Your task to perform on an android device: toggle pop-ups in chrome Image 0: 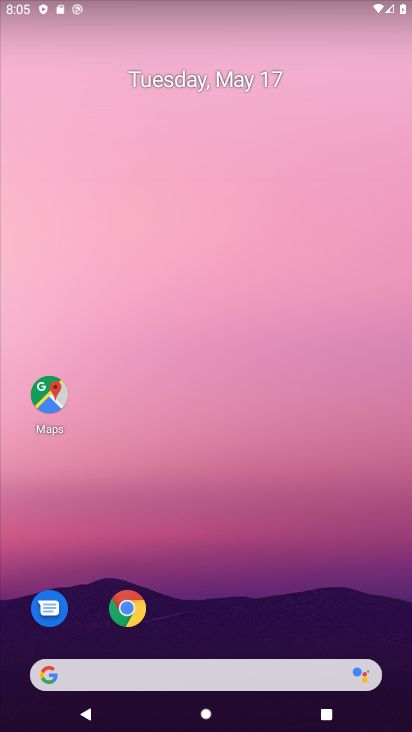
Step 0: drag from (366, 614) to (352, 167)
Your task to perform on an android device: toggle pop-ups in chrome Image 1: 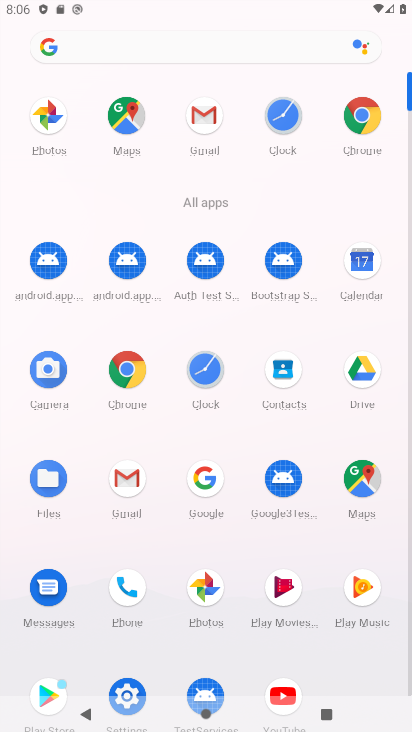
Step 1: click (370, 138)
Your task to perform on an android device: toggle pop-ups in chrome Image 2: 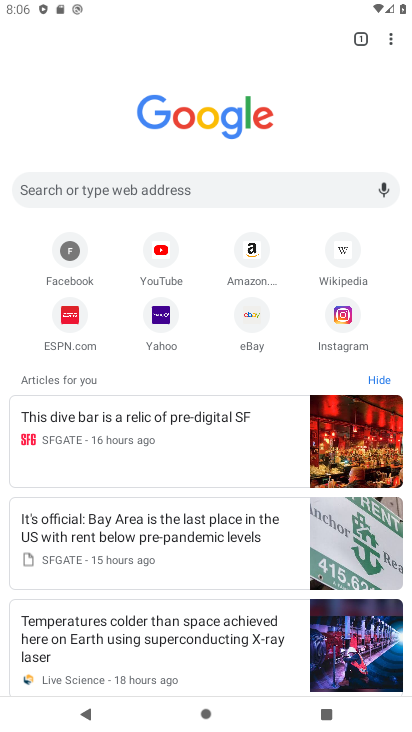
Step 2: click (391, 43)
Your task to perform on an android device: toggle pop-ups in chrome Image 3: 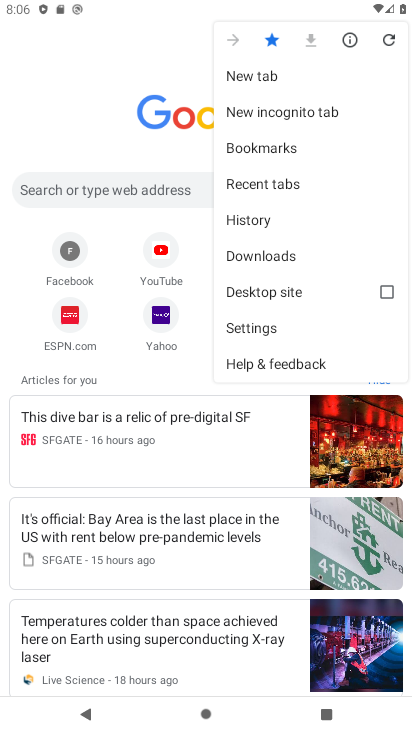
Step 3: click (268, 336)
Your task to perform on an android device: toggle pop-ups in chrome Image 4: 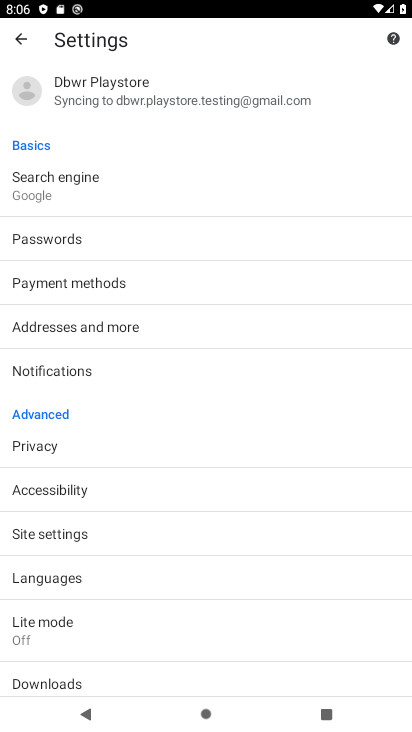
Step 4: drag from (298, 570) to (309, 423)
Your task to perform on an android device: toggle pop-ups in chrome Image 5: 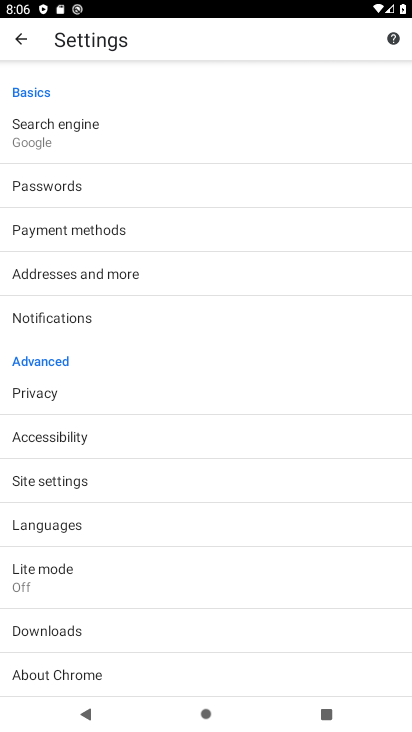
Step 5: drag from (319, 615) to (323, 476)
Your task to perform on an android device: toggle pop-ups in chrome Image 6: 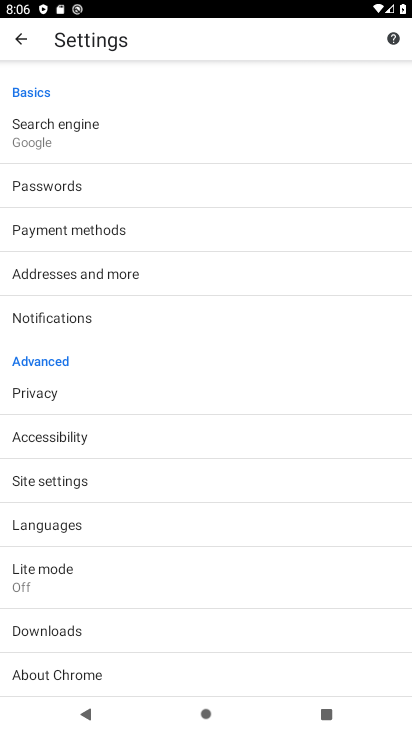
Step 6: click (323, 474)
Your task to perform on an android device: toggle pop-ups in chrome Image 7: 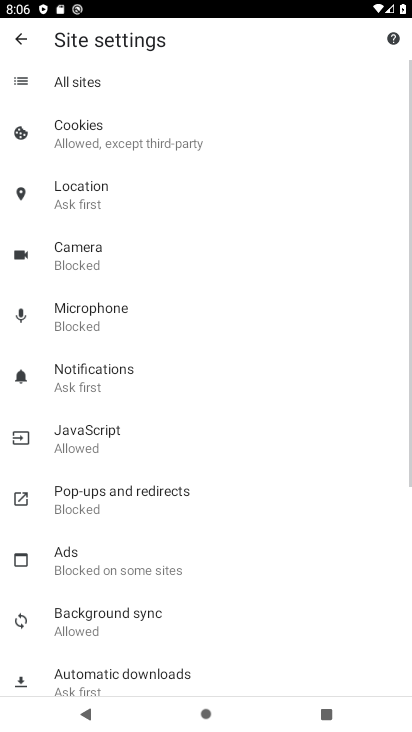
Step 7: drag from (321, 597) to (320, 494)
Your task to perform on an android device: toggle pop-ups in chrome Image 8: 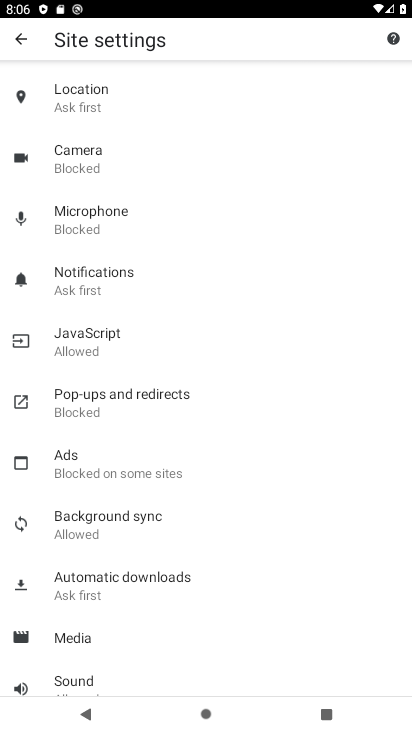
Step 8: drag from (322, 617) to (316, 514)
Your task to perform on an android device: toggle pop-ups in chrome Image 9: 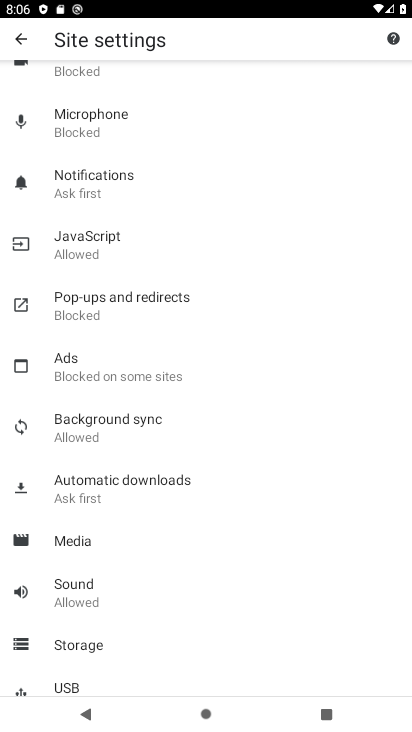
Step 9: drag from (308, 619) to (296, 491)
Your task to perform on an android device: toggle pop-ups in chrome Image 10: 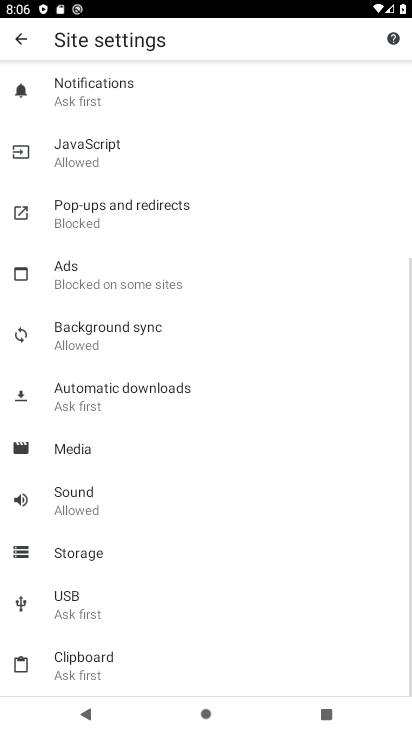
Step 10: drag from (303, 619) to (297, 501)
Your task to perform on an android device: toggle pop-ups in chrome Image 11: 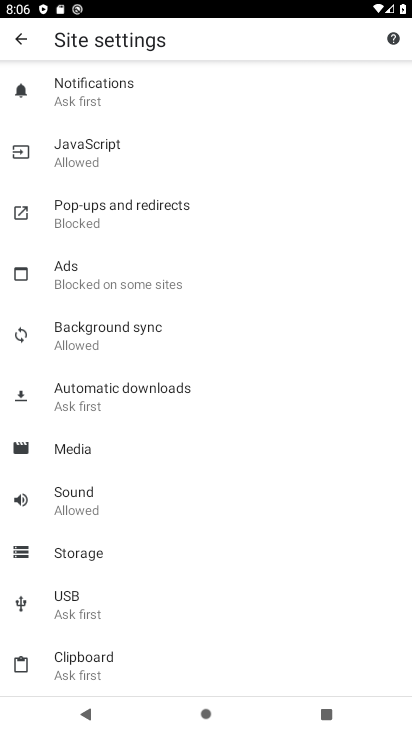
Step 11: drag from (289, 595) to (285, 473)
Your task to perform on an android device: toggle pop-ups in chrome Image 12: 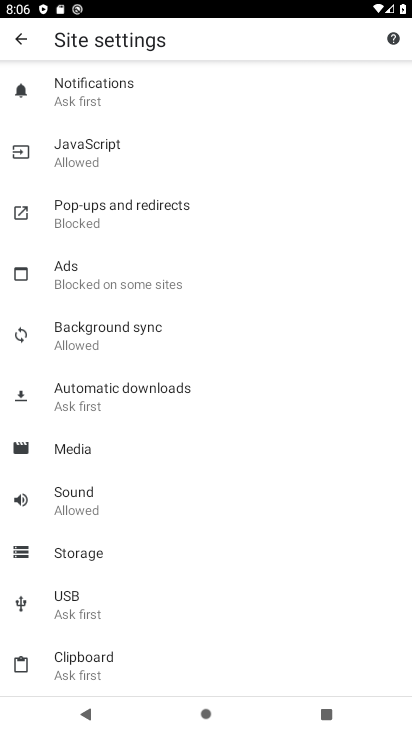
Step 12: click (204, 224)
Your task to perform on an android device: toggle pop-ups in chrome Image 13: 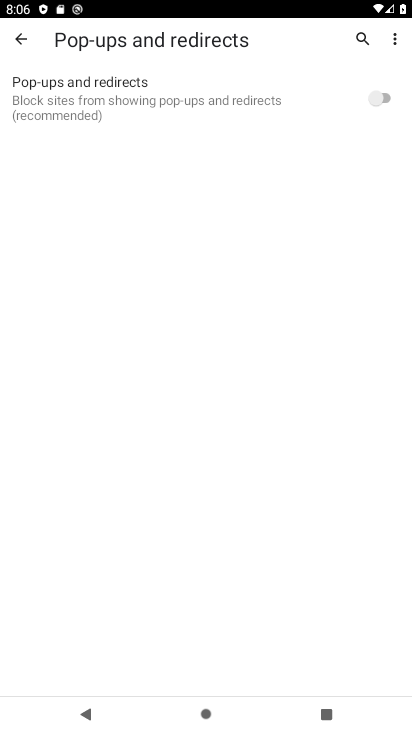
Step 13: click (377, 100)
Your task to perform on an android device: toggle pop-ups in chrome Image 14: 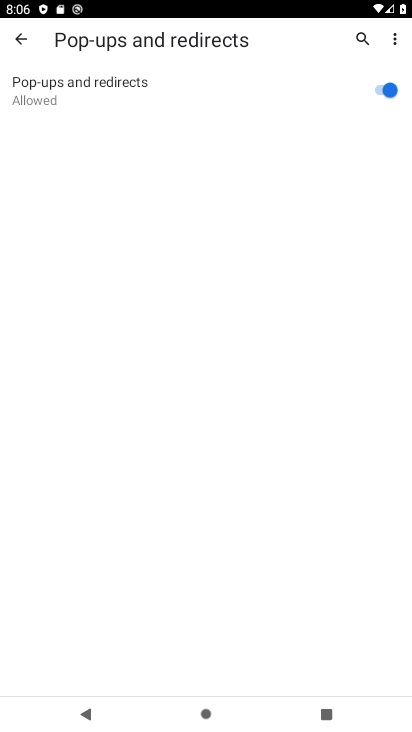
Step 14: task complete